Your task to perform on an android device: check google app version Image 0: 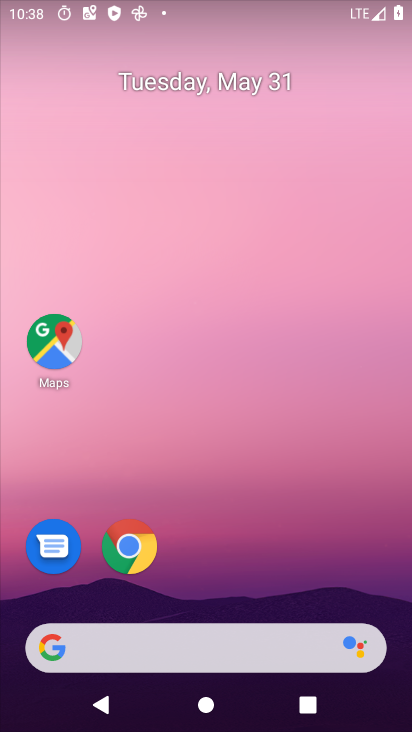
Step 0: click (111, 653)
Your task to perform on an android device: check google app version Image 1: 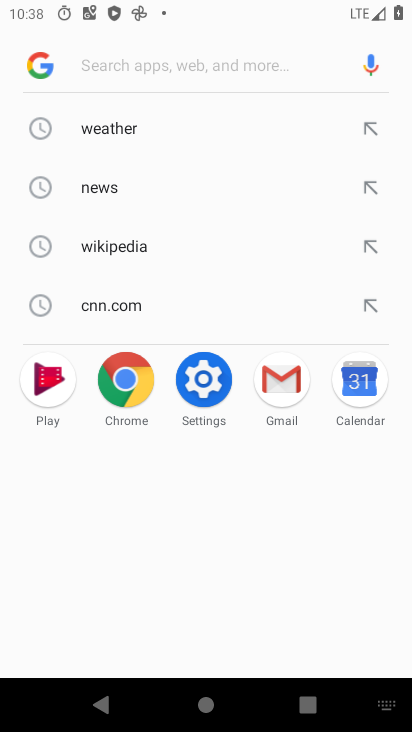
Step 1: click (45, 53)
Your task to perform on an android device: check google app version Image 2: 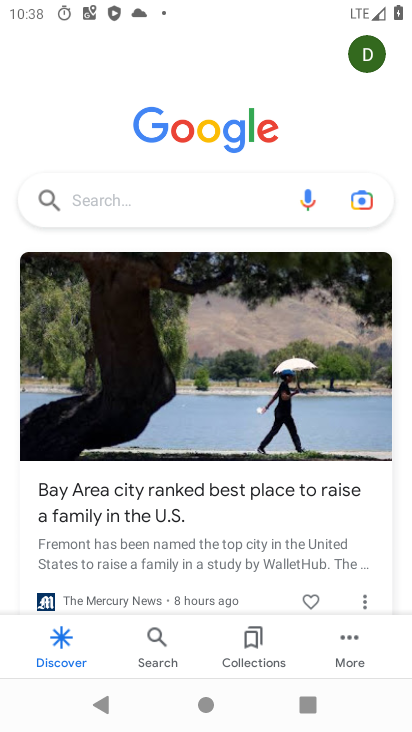
Step 2: click (363, 639)
Your task to perform on an android device: check google app version Image 3: 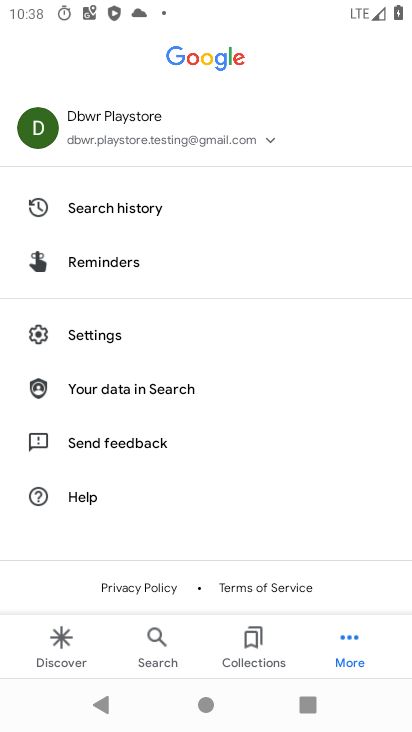
Step 3: click (64, 319)
Your task to perform on an android device: check google app version Image 4: 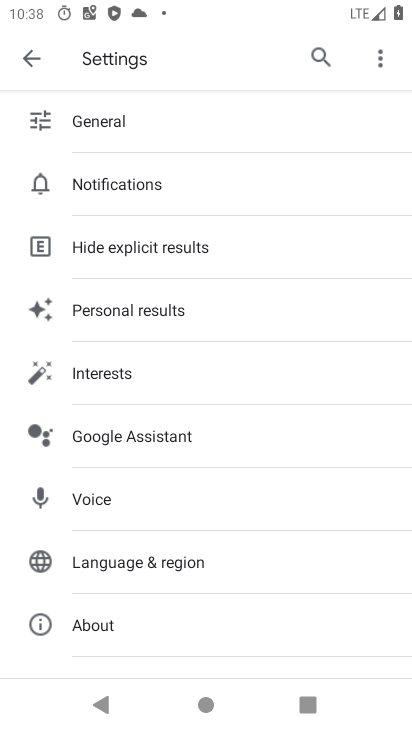
Step 4: click (168, 608)
Your task to perform on an android device: check google app version Image 5: 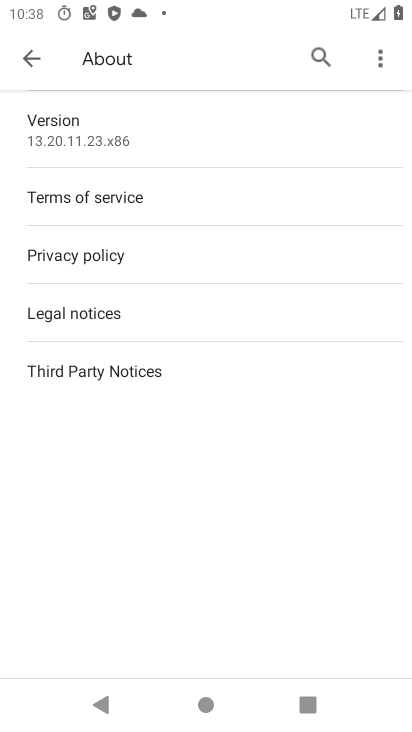
Step 5: task complete